Your task to perform on an android device: move an email to a new category in the gmail app Image 0: 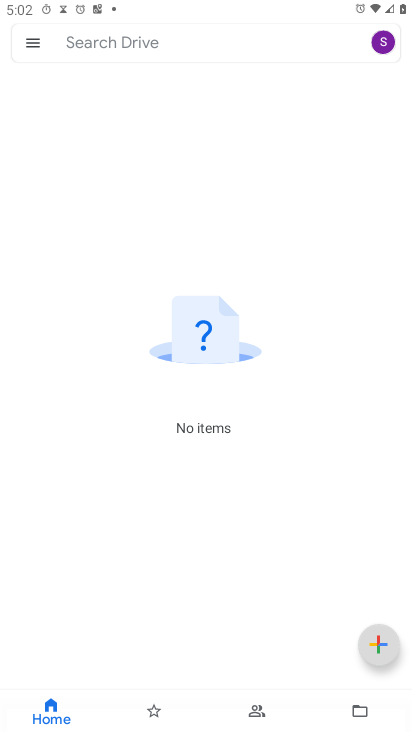
Step 0: press home button
Your task to perform on an android device: move an email to a new category in the gmail app Image 1: 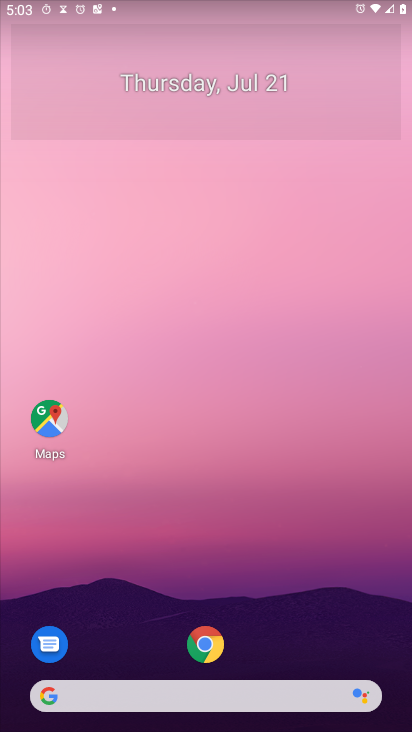
Step 1: drag from (279, 620) to (271, 0)
Your task to perform on an android device: move an email to a new category in the gmail app Image 2: 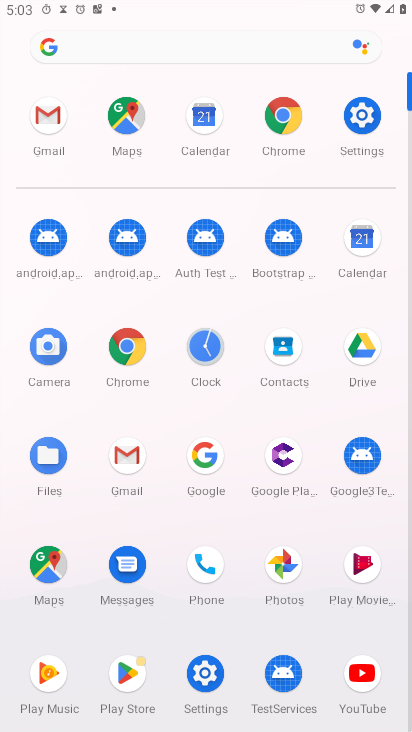
Step 2: click (43, 111)
Your task to perform on an android device: move an email to a new category in the gmail app Image 3: 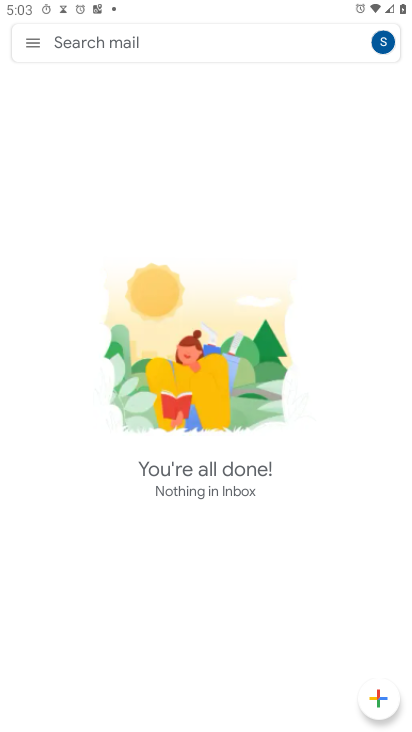
Step 3: click (20, 34)
Your task to perform on an android device: move an email to a new category in the gmail app Image 4: 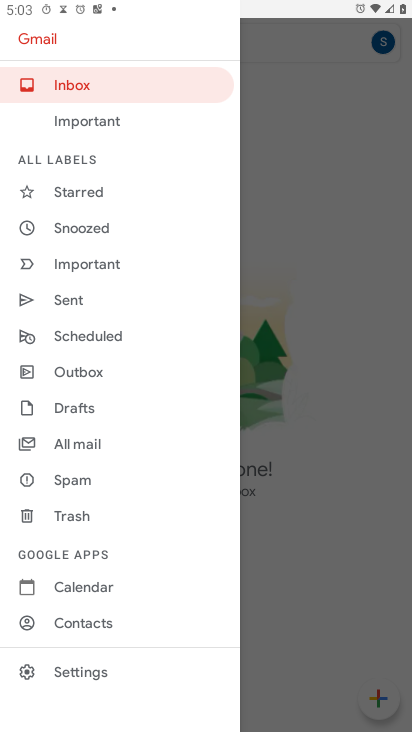
Step 4: click (85, 448)
Your task to perform on an android device: move an email to a new category in the gmail app Image 5: 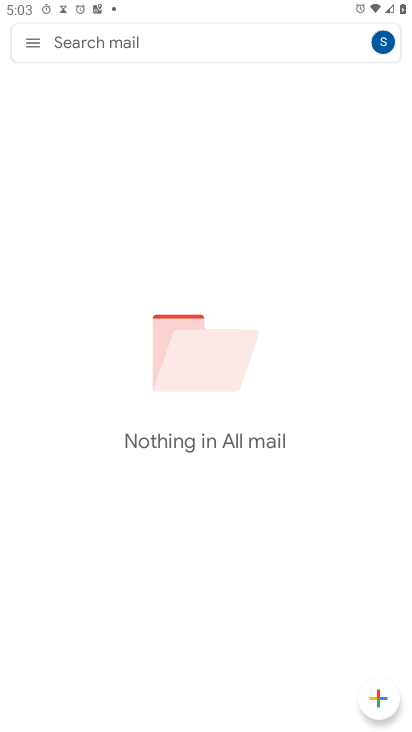
Step 5: task complete